Your task to perform on an android device: change alarm snooze length Image 0: 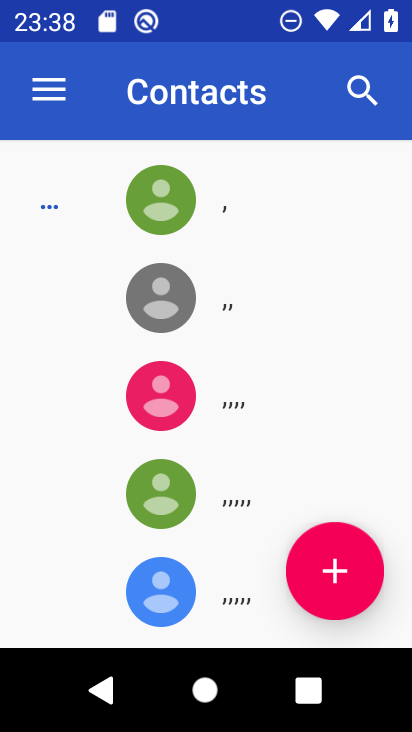
Step 0: press home button
Your task to perform on an android device: change alarm snooze length Image 1: 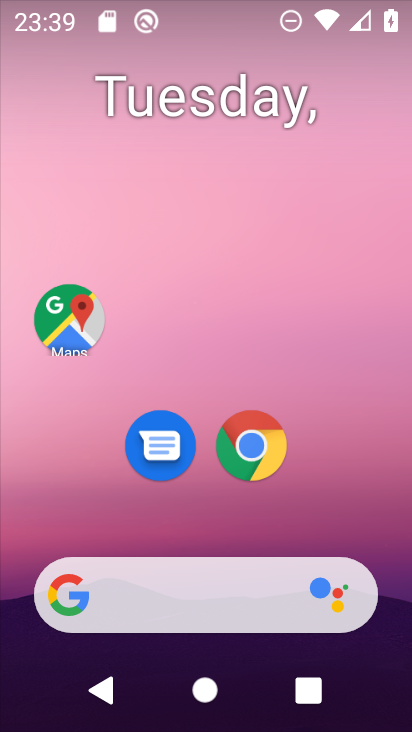
Step 1: drag from (212, 527) to (274, 1)
Your task to perform on an android device: change alarm snooze length Image 2: 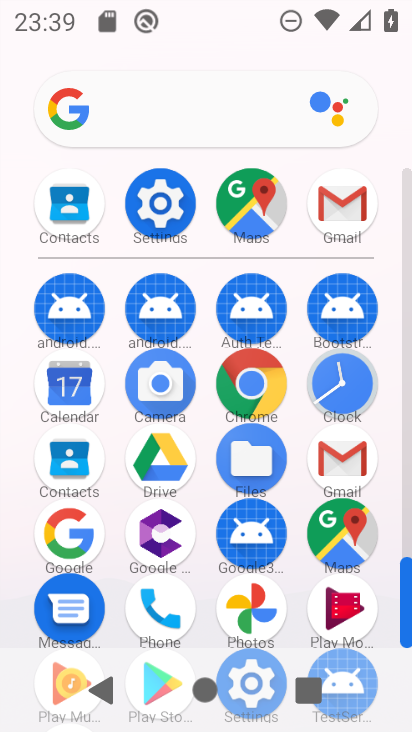
Step 2: click (343, 385)
Your task to perform on an android device: change alarm snooze length Image 3: 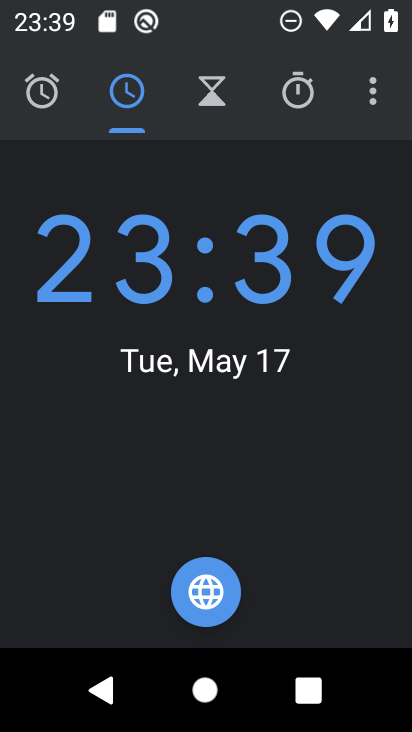
Step 3: click (363, 85)
Your task to perform on an android device: change alarm snooze length Image 4: 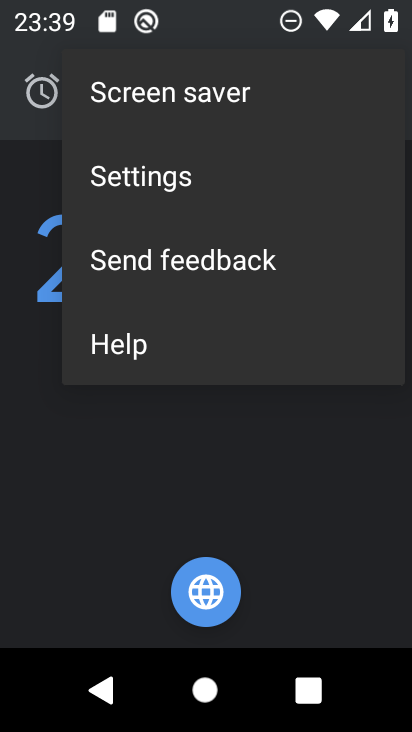
Step 4: click (179, 180)
Your task to perform on an android device: change alarm snooze length Image 5: 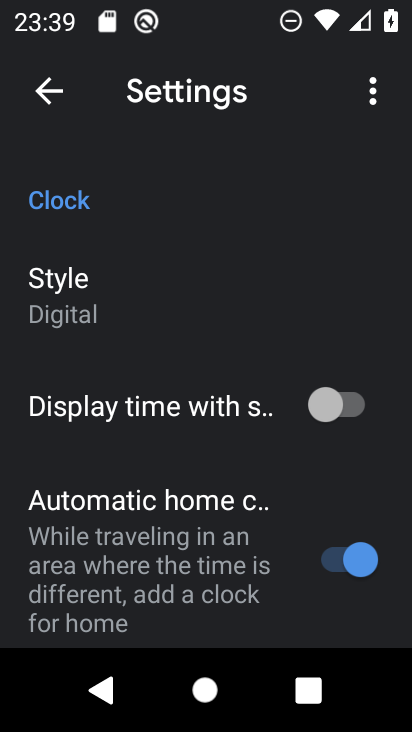
Step 5: drag from (104, 603) to (194, 293)
Your task to perform on an android device: change alarm snooze length Image 6: 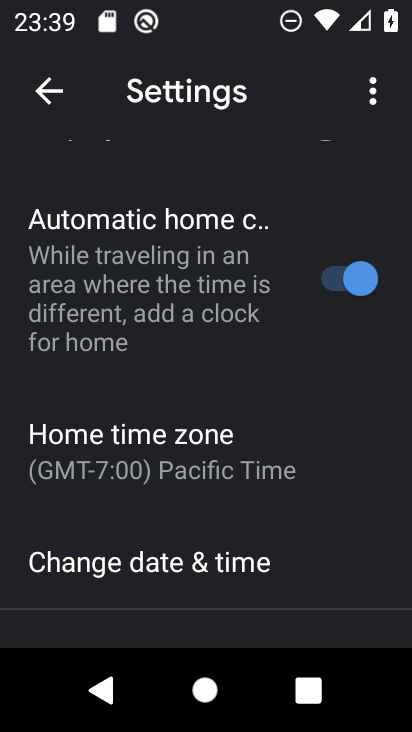
Step 6: drag from (134, 550) to (169, 290)
Your task to perform on an android device: change alarm snooze length Image 7: 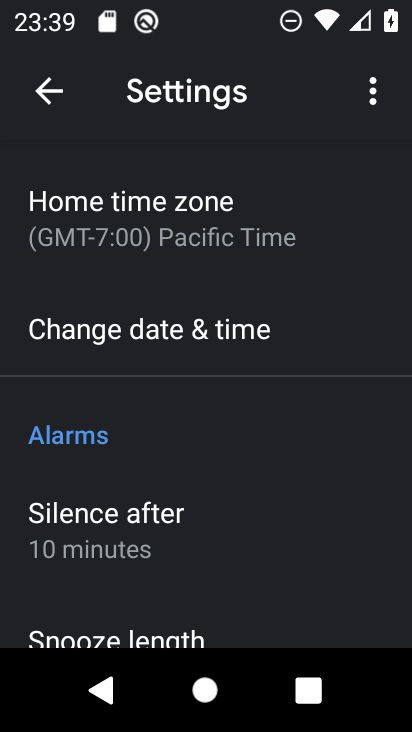
Step 7: drag from (185, 533) to (210, 329)
Your task to perform on an android device: change alarm snooze length Image 8: 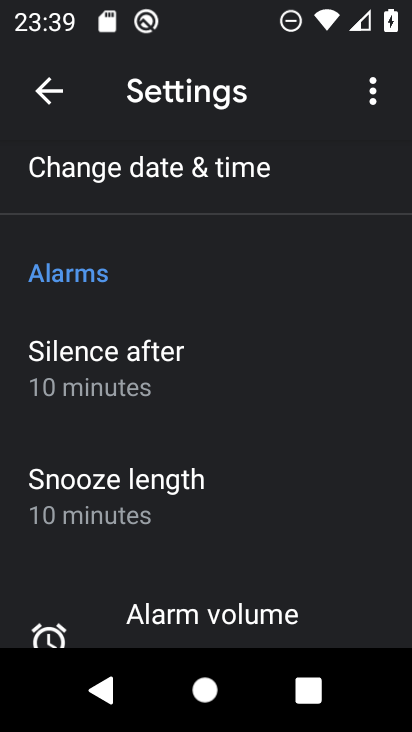
Step 8: drag from (137, 415) to (156, 379)
Your task to perform on an android device: change alarm snooze length Image 9: 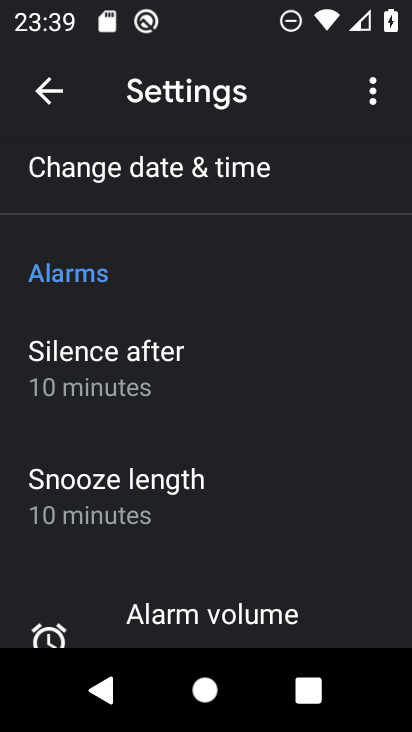
Step 9: drag from (186, 480) to (219, 344)
Your task to perform on an android device: change alarm snooze length Image 10: 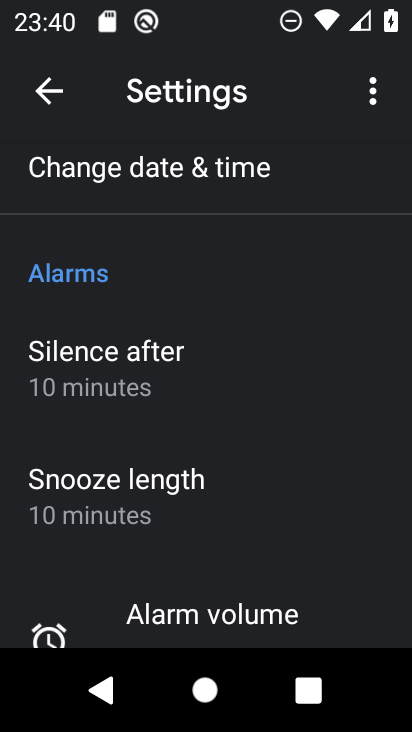
Step 10: click (103, 486)
Your task to perform on an android device: change alarm snooze length Image 11: 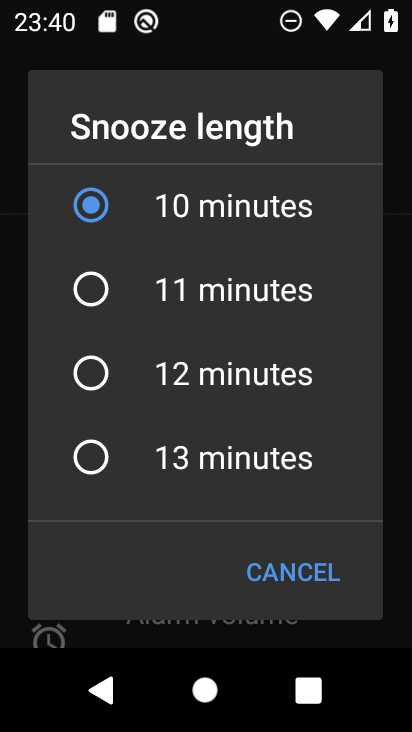
Step 11: click (130, 457)
Your task to perform on an android device: change alarm snooze length Image 12: 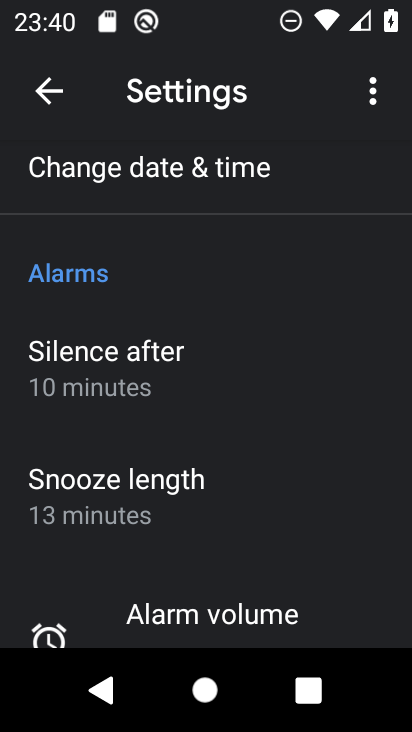
Step 12: task complete